Your task to perform on an android device: change alarm snooze length Image 0: 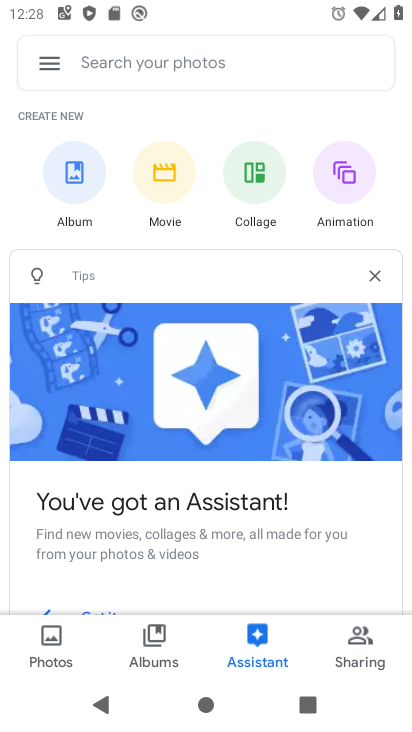
Step 0: press home button
Your task to perform on an android device: change alarm snooze length Image 1: 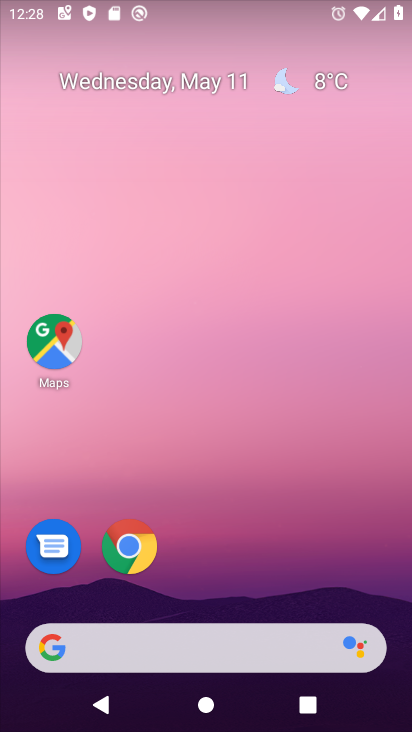
Step 1: drag from (241, 660) to (315, 121)
Your task to perform on an android device: change alarm snooze length Image 2: 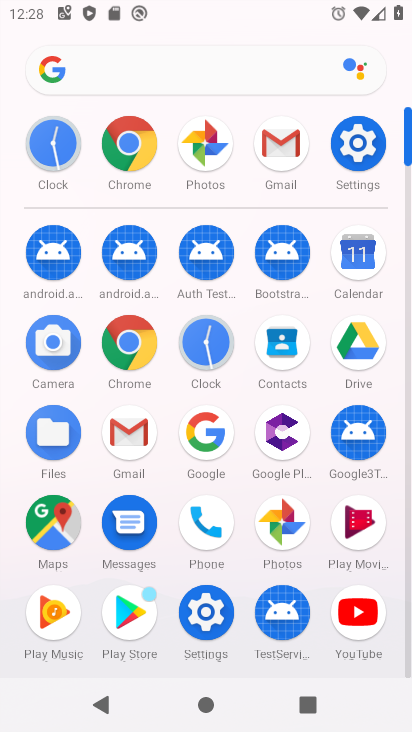
Step 2: click (56, 140)
Your task to perform on an android device: change alarm snooze length Image 3: 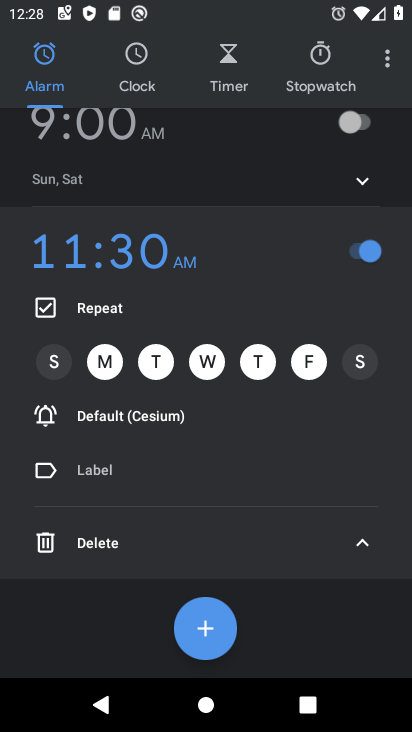
Step 3: click (386, 71)
Your task to perform on an android device: change alarm snooze length Image 4: 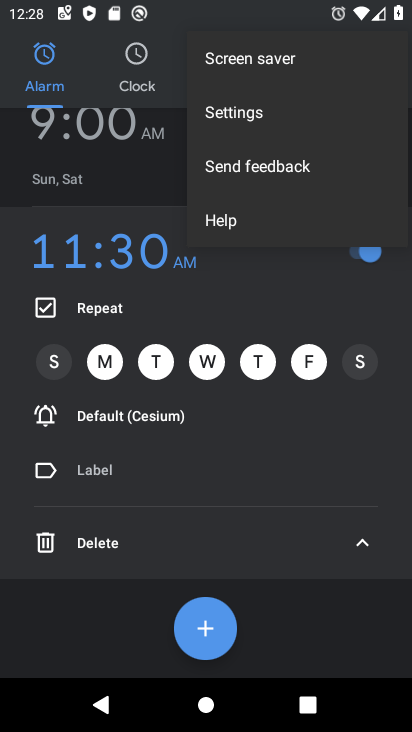
Step 4: click (249, 112)
Your task to perform on an android device: change alarm snooze length Image 5: 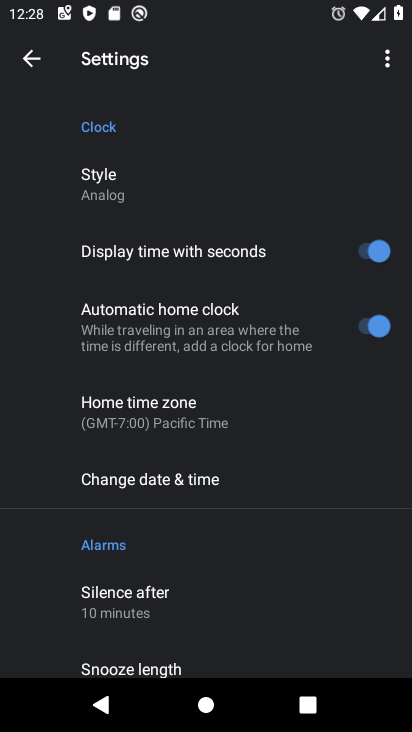
Step 5: drag from (256, 588) to (326, 212)
Your task to perform on an android device: change alarm snooze length Image 6: 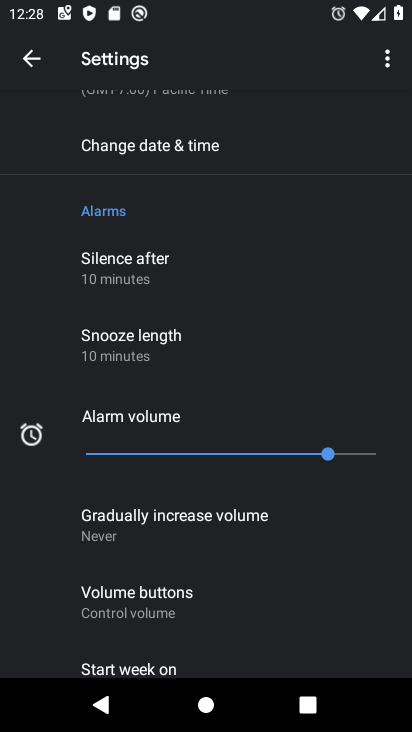
Step 6: click (152, 344)
Your task to perform on an android device: change alarm snooze length Image 7: 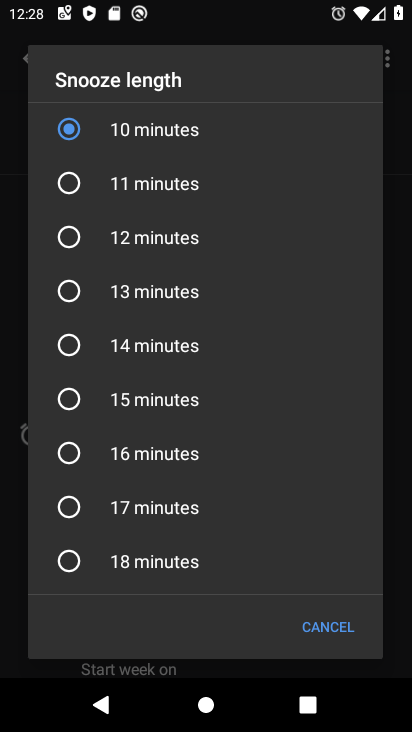
Step 7: click (70, 350)
Your task to perform on an android device: change alarm snooze length Image 8: 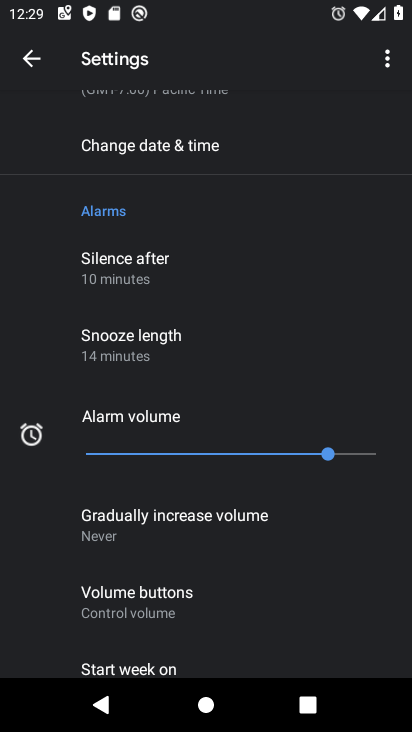
Step 8: task complete